Your task to perform on an android device: change notifications settings Image 0: 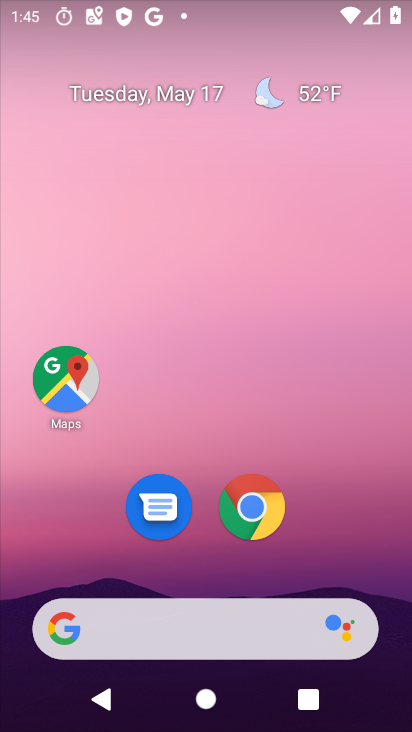
Step 0: click (235, 131)
Your task to perform on an android device: change notifications settings Image 1: 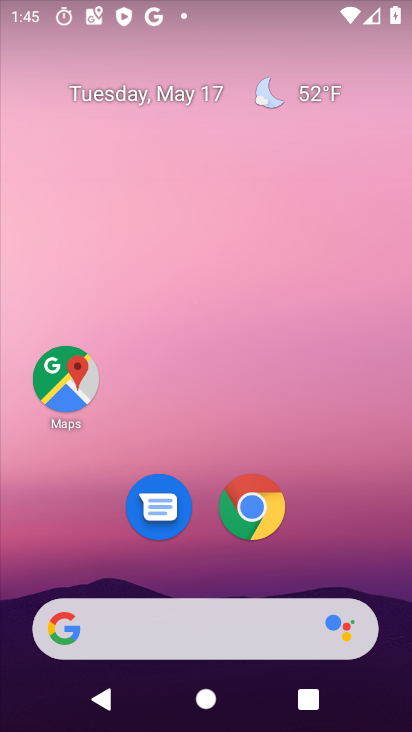
Step 1: drag from (202, 547) to (225, 119)
Your task to perform on an android device: change notifications settings Image 2: 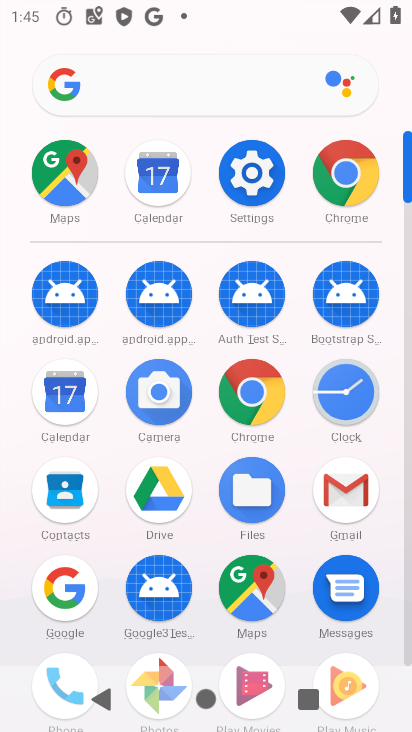
Step 2: click (253, 187)
Your task to perform on an android device: change notifications settings Image 3: 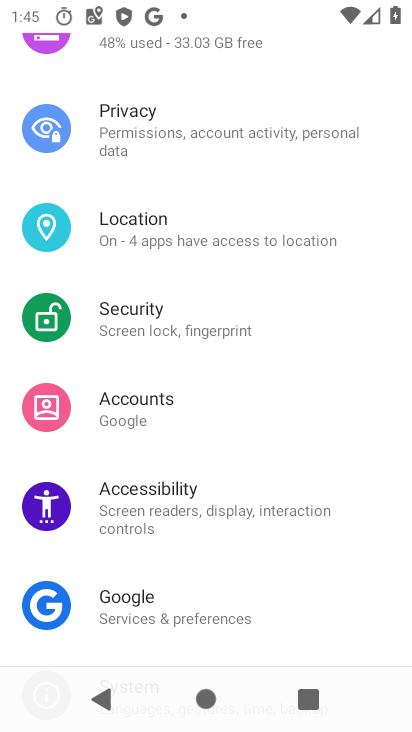
Step 3: drag from (197, 183) to (268, 441)
Your task to perform on an android device: change notifications settings Image 4: 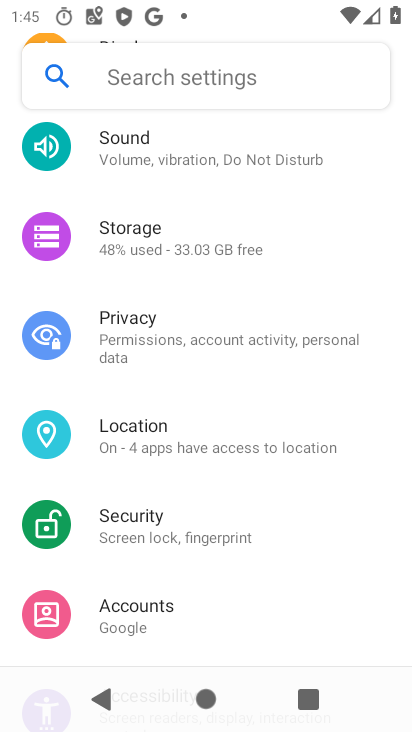
Step 4: drag from (177, 189) to (240, 475)
Your task to perform on an android device: change notifications settings Image 5: 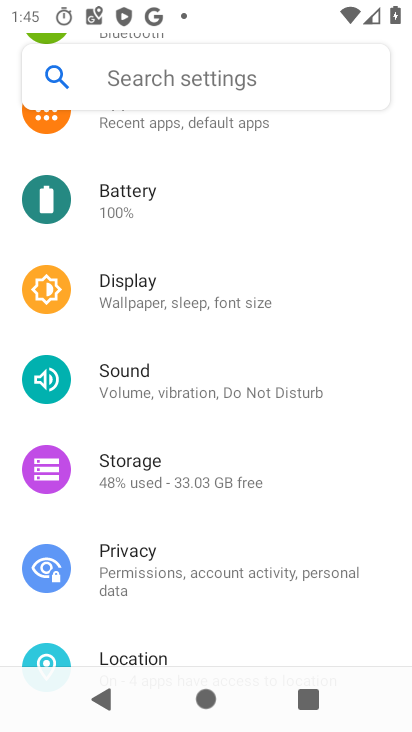
Step 5: drag from (189, 164) to (215, 484)
Your task to perform on an android device: change notifications settings Image 6: 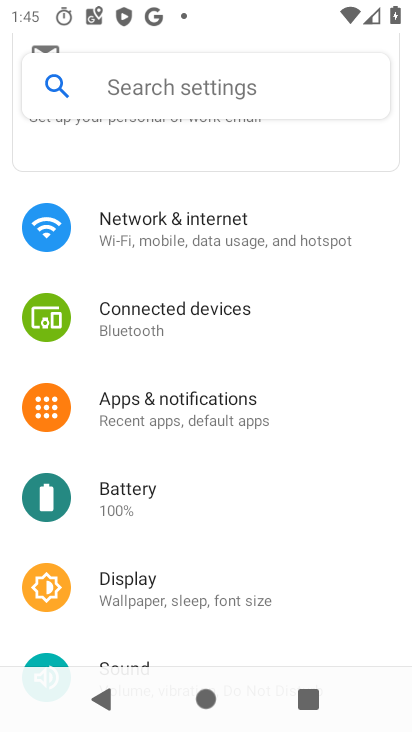
Step 6: click (196, 401)
Your task to perform on an android device: change notifications settings Image 7: 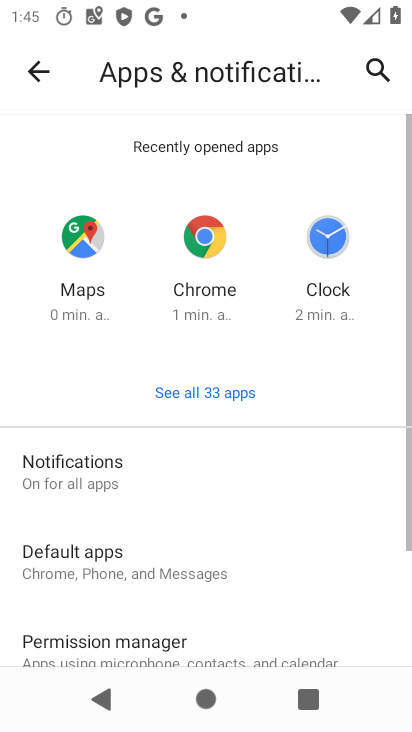
Step 7: click (109, 477)
Your task to perform on an android device: change notifications settings Image 8: 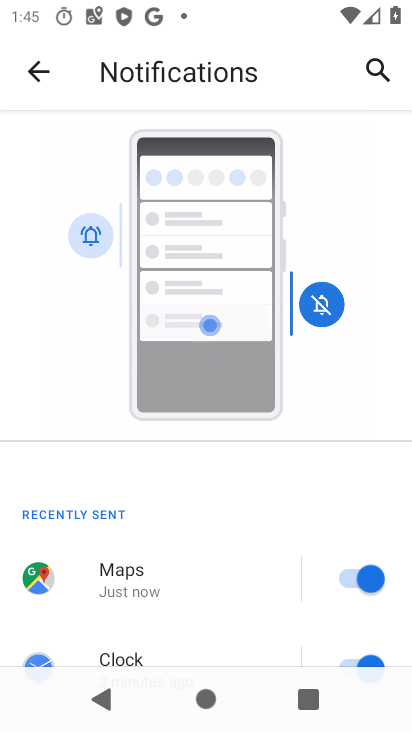
Step 8: drag from (285, 464) to (281, 23)
Your task to perform on an android device: change notifications settings Image 9: 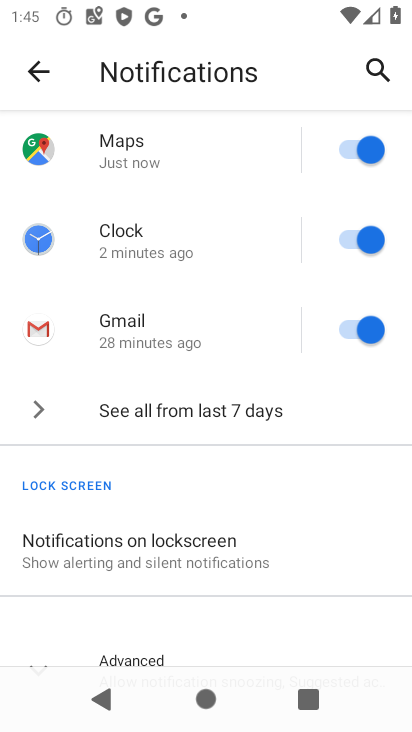
Step 9: drag from (169, 558) to (196, 262)
Your task to perform on an android device: change notifications settings Image 10: 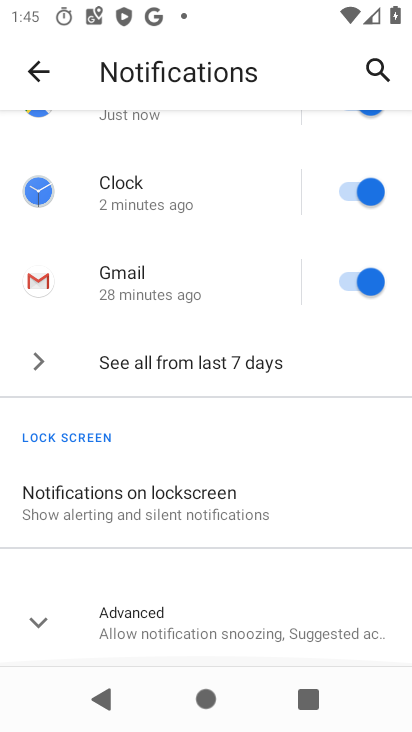
Step 10: click (155, 631)
Your task to perform on an android device: change notifications settings Image 11: 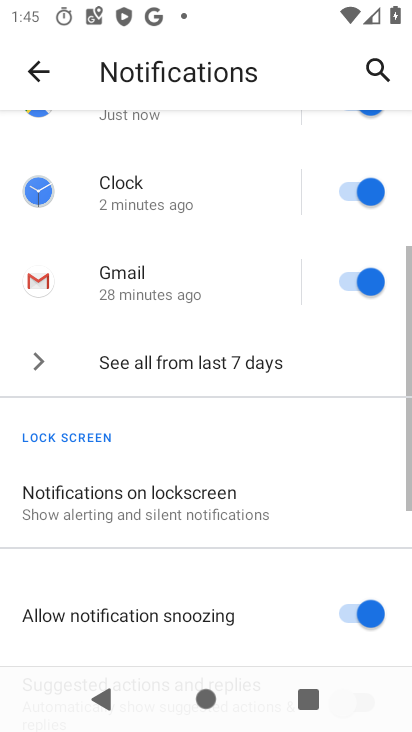
Step 11: drag from (259, 603) to (244, 246)
Your task to perform on an android device: change notifications settings Image 12: 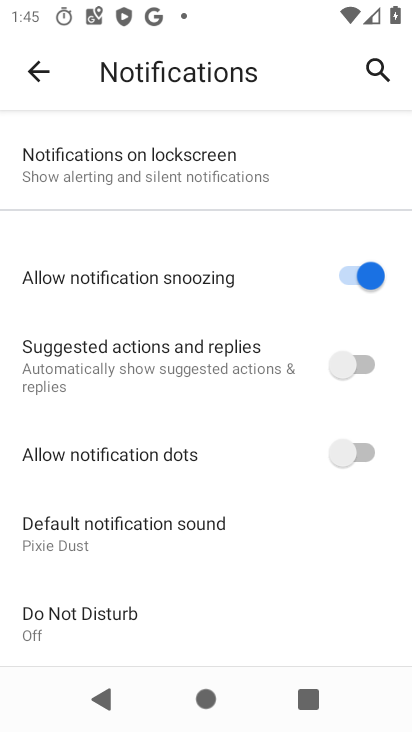
Step 12: click (357, 276)
Your task to perform on an android device: change notifications settings Image 13: 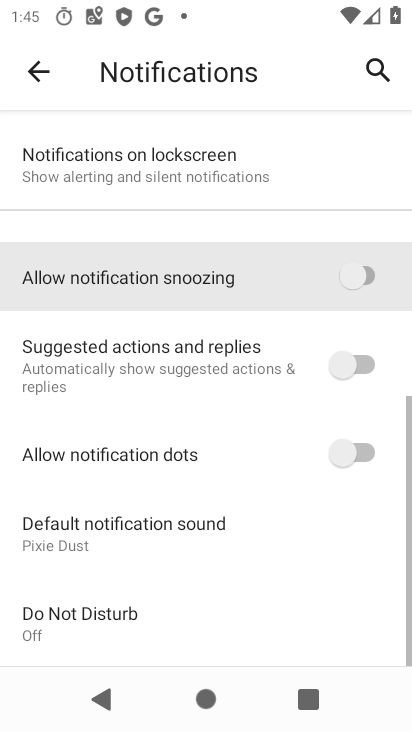
Step 13: click (354, 363)
Your task to perform on an android device: change notifications settings Image 14: 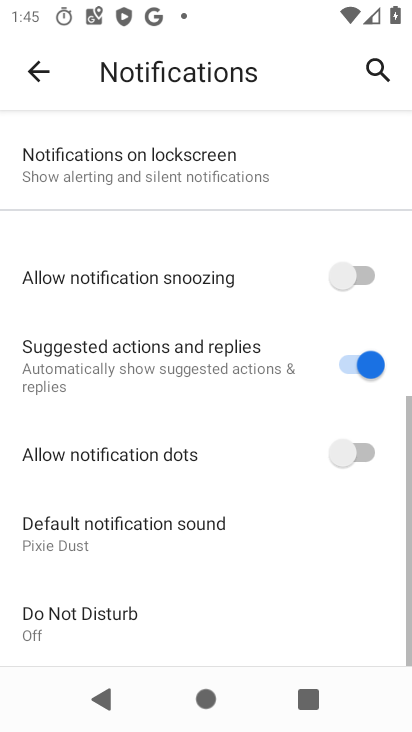
Step 14: click (353, 449)
Your task to perform on an android device: change notifications settings Image 15: 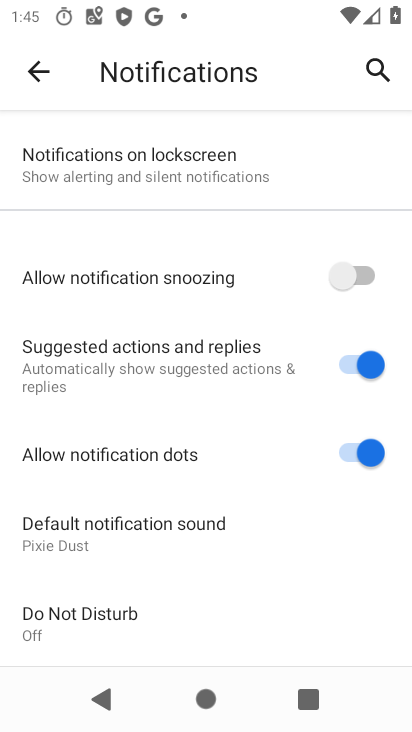
Step 15: task complete